Your task to perform on an android device: Go to settings Image 0: 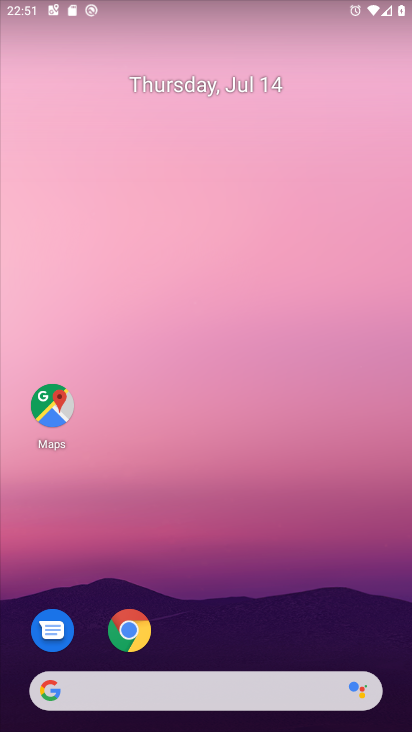
Step 0: click (279, 251)
Your task to perform on an android device: Go to settings Image 1: 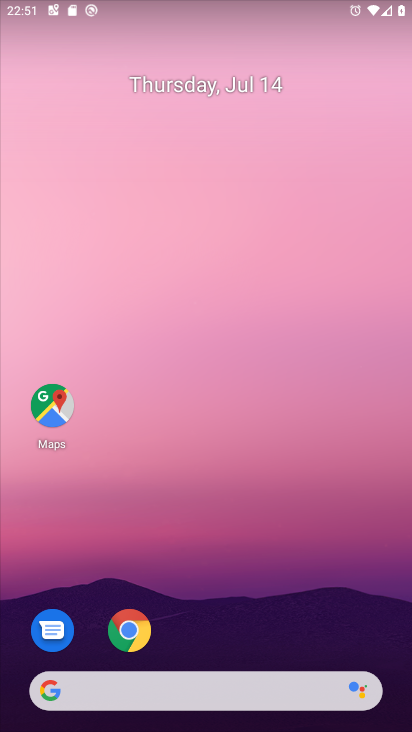
Step 1: drag from (234, 594) to (264, 149)
Your task to perform on an android device: Go to settings Image 2: 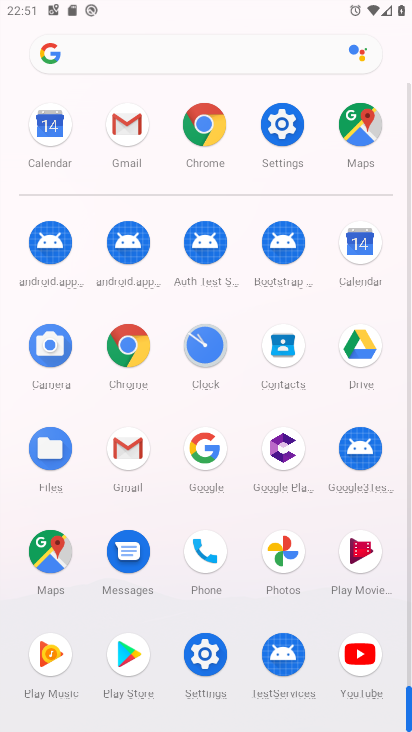
Step 2: click (283, 129)
Your task to perform on an android device: Go to settings Image 3: 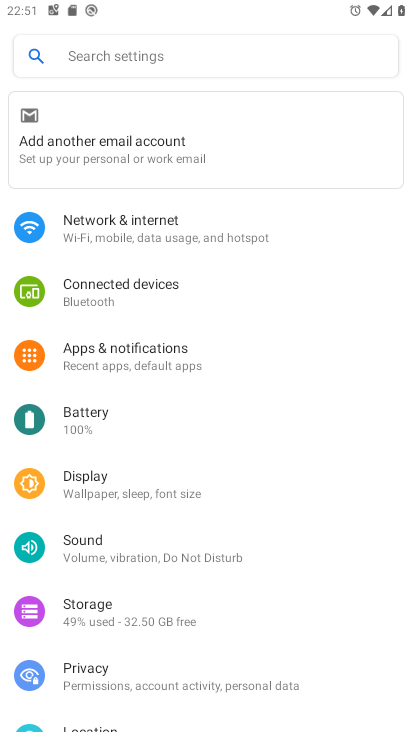
Step 3: task complete